Your task to perform on an android device: toggle wifi Image 0: 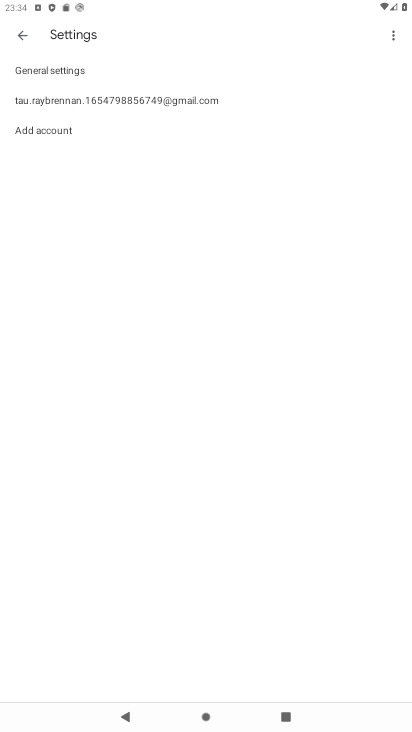
Step 0: press home button
Your task to perform on an android device: toggle wifi Image 1: 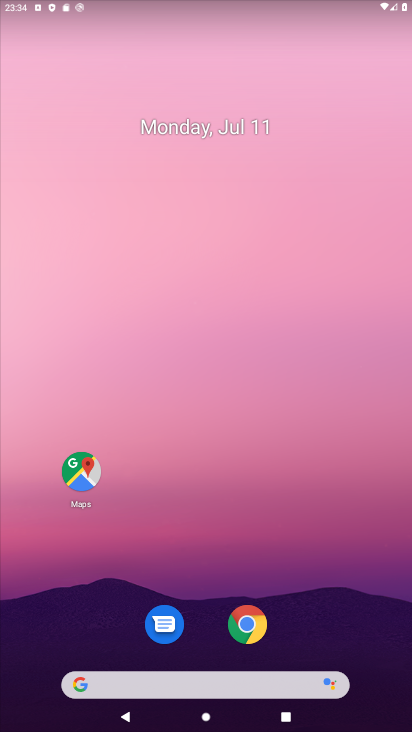
Step 1: drag from (214, 627) to (254, 301)
Your task to perform on an android device: toggle wifi Image 2: 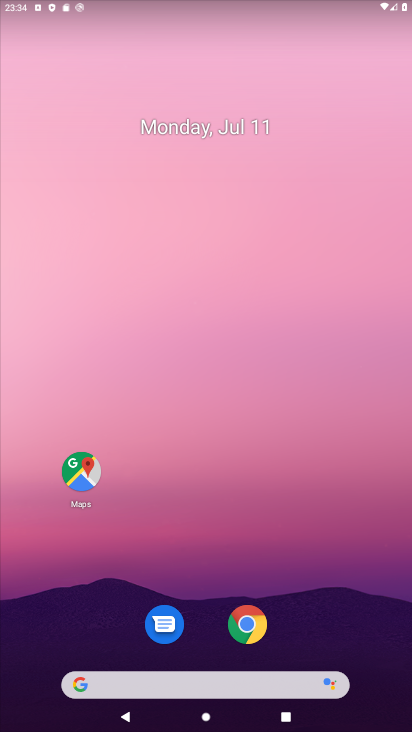
Step 2: drag from (204, 652) to (224, 217)
Your task to perform on an android device: toggle wifi Image 3: 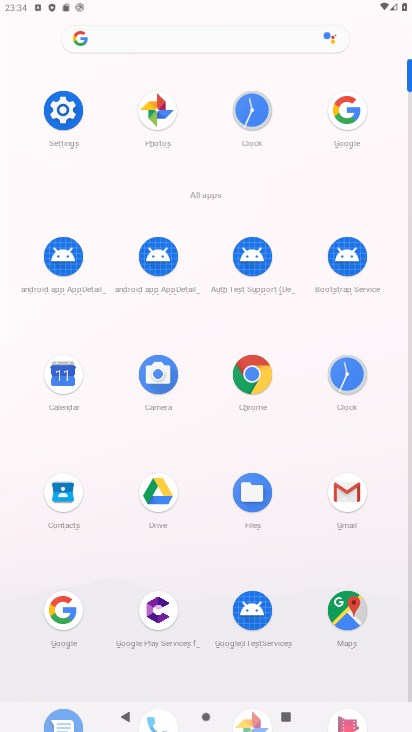
Step 3: click (53, 101)
Your task to perform on an android device: toggle wifi Image 4: 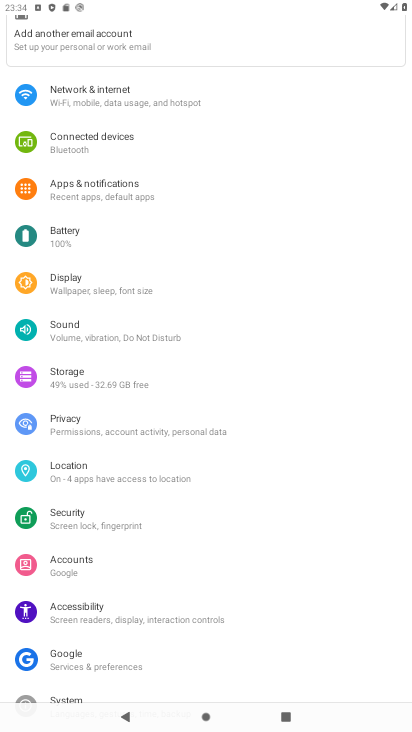
Step 4: click (167, 99)
Your task to perform on an android device: toggle wifi Image 5: 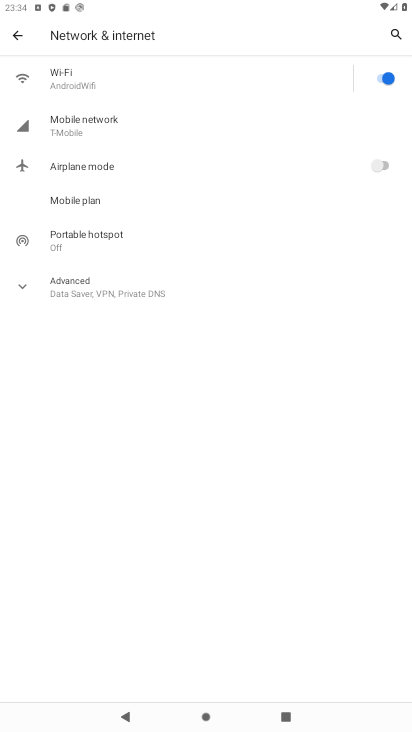
Step 5: click (375, 78)
Your task to perform on an android device: toggle wifi Image 6: 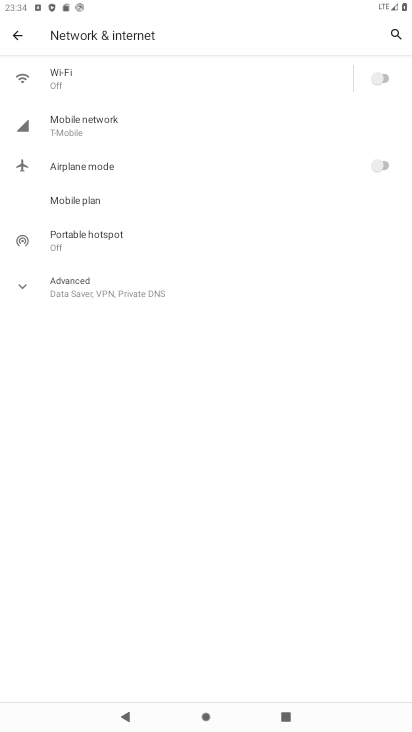
Step 6: task complete